Your task to perform on an android device: Open Chrome and go to settings Image 0: 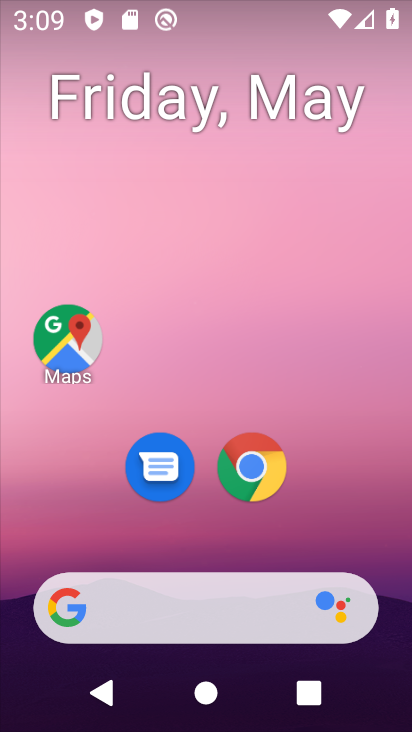
Step 0: drag from (346, 503) to (251, 716)
Your task to perform on an android device: Open Chrome and go to settings Image 1: 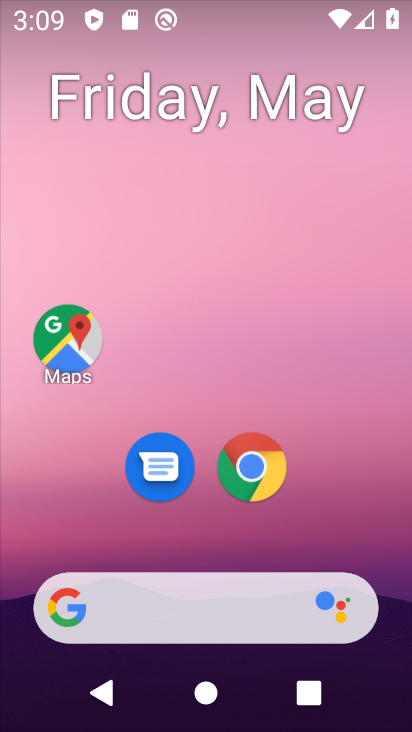
Step 1: drag from (341, 517) to (350, 0)
Your task to perform on an android device: Open Chrome and go to settings Image 2: 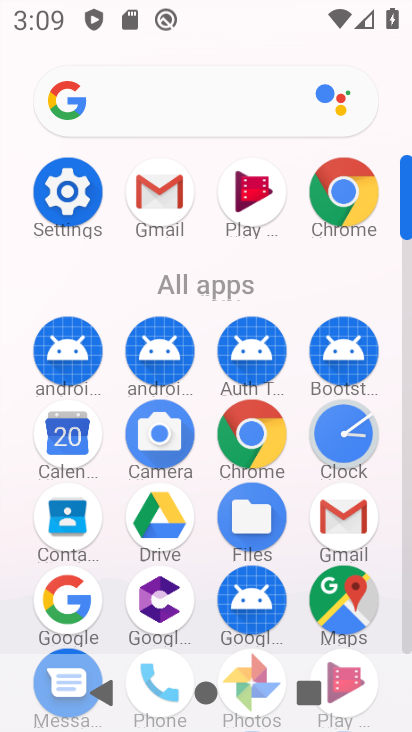
Step 2: click (70, 187)
Your task to perform on an android device: Open Chrome and go to settings Image 3: 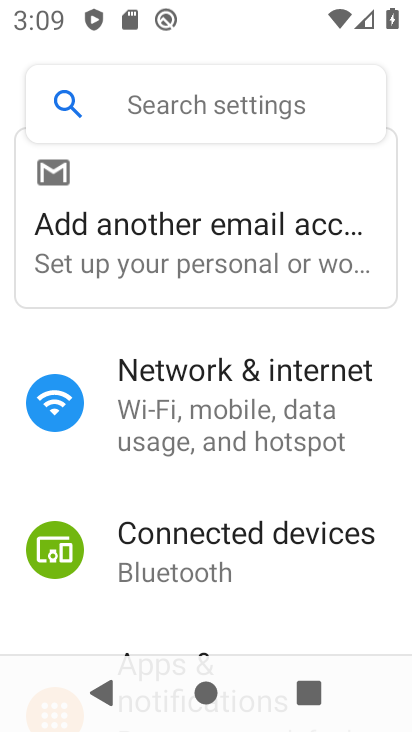
Step 3: press home button
Your task to perform on an android device: Open Chrome and go to settings Image 4: 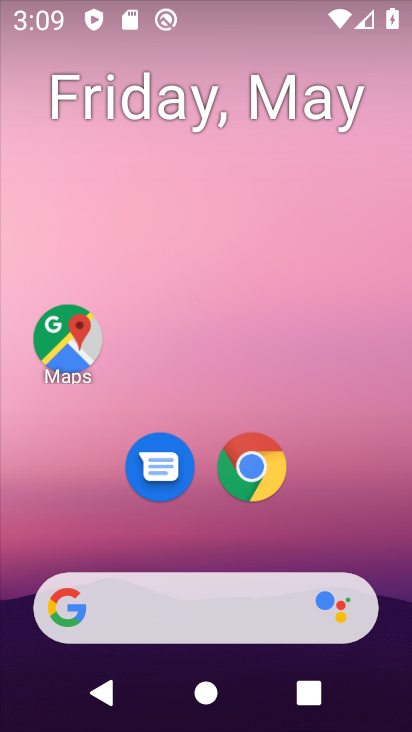
Step 4: click (278, 487)
Your task to perform on an android device: Open Chrome and go to settings Image 5: 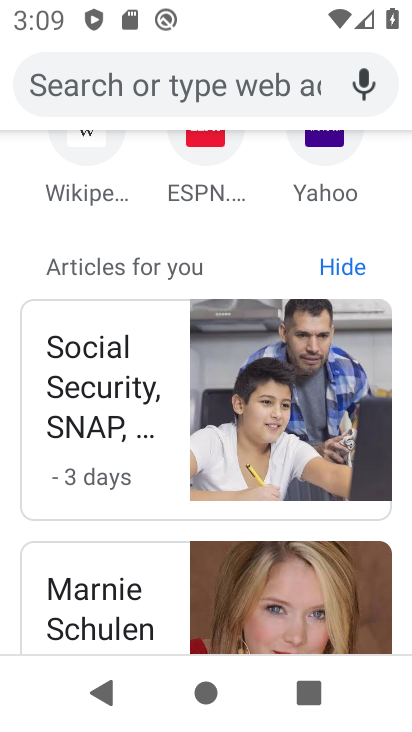
Step 5: task complete